Your task to perform on an android device: change the upload size in google photos Image 0: 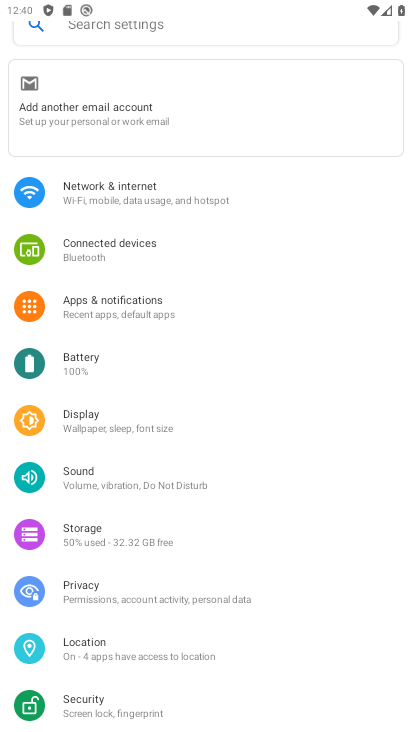
Step 0: press home button
Your task to perform on an android device: change the upload size in google photos Image 1: 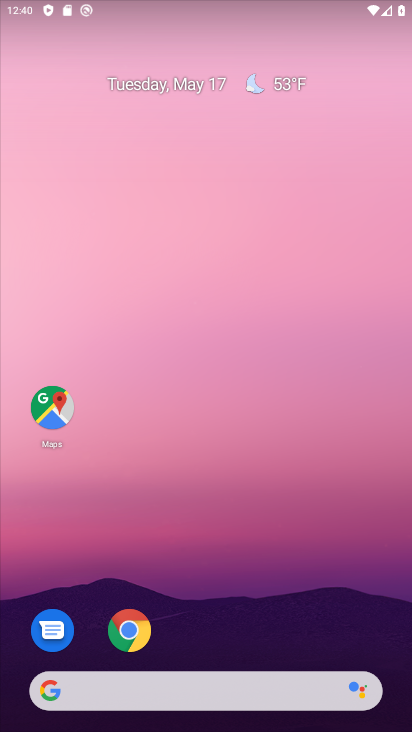
Step 1: drag from (204, 614) to (215, 356)
Your task to perform on an android device: change the upload size in google photos Image 2: 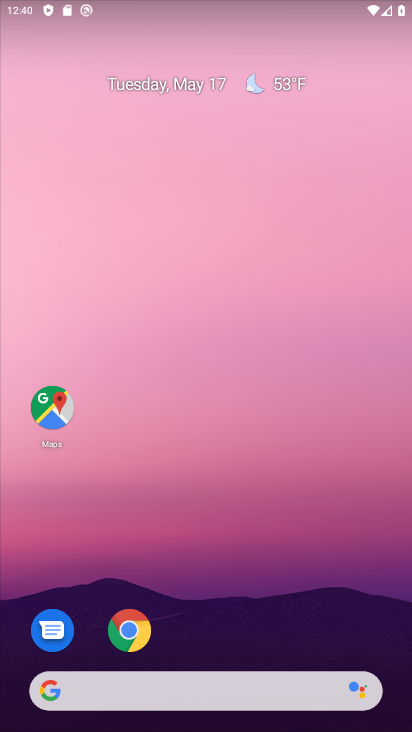
Step 2: drag from (215, 559) to (266, 150)
Your task to perform on an android device: change the upload size in google photos Image 3: 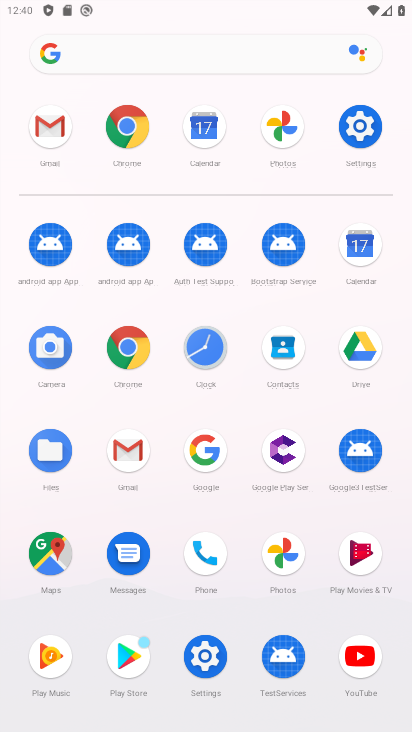
Step 3: click (289, 547)
Your task to perform on an android device: change the upload size in google photos Image 4: 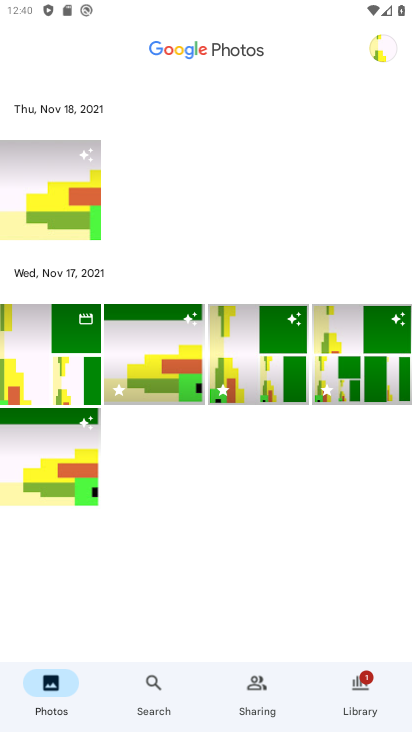
Step 4: click (383, 55)
Your task to perform on an android device: change the upload size in google photos Image 5: 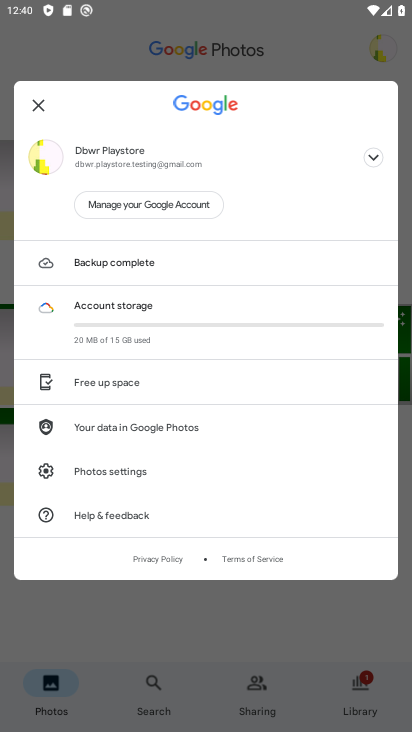
Step 5: click (119, 479)
Your task to perform on an android device: change the upload size in google photos Image 6: 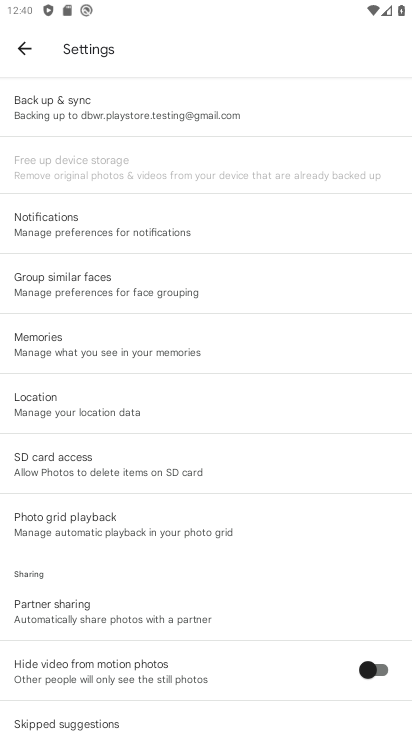
Step 6: click (117, 130)
Your task to perform on an android device: change the upload size in google photos Image 7: 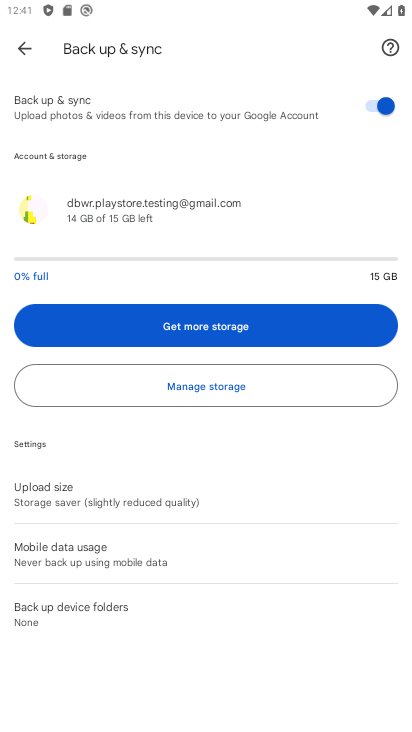
Step 7: click (125, 497)
Your task to perform on an android device: change the upload size in google photos Image 8: 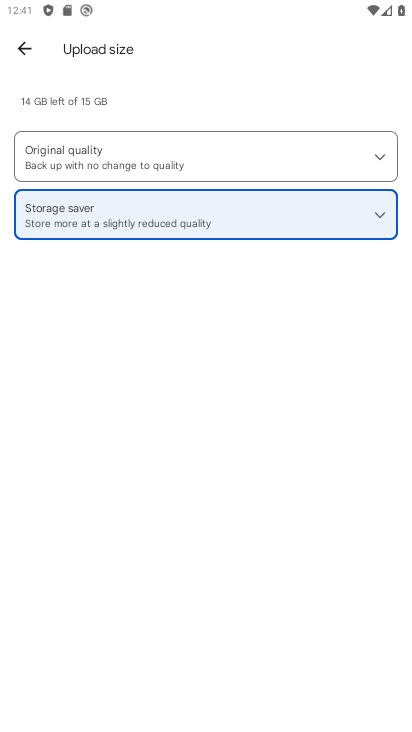
Step 8: click (145, 163)
Your task to perform on an android device: change the upload size in google photos Image 9: 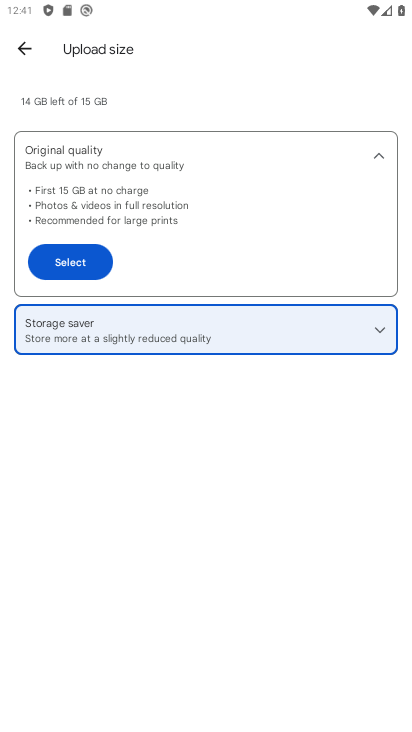
Step 9: click (80, 266)
Your task to perform on an android device: change the upload size in google photos Image 10: 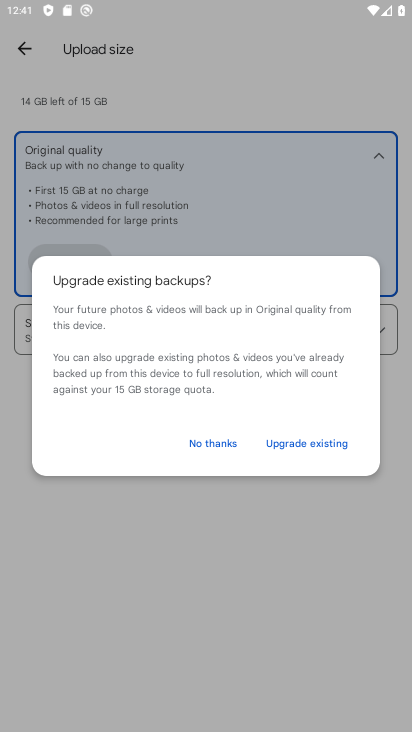
Step 10: click (197, 433)
Your task to perform on an android device: change the upload size in google photos Image 11: 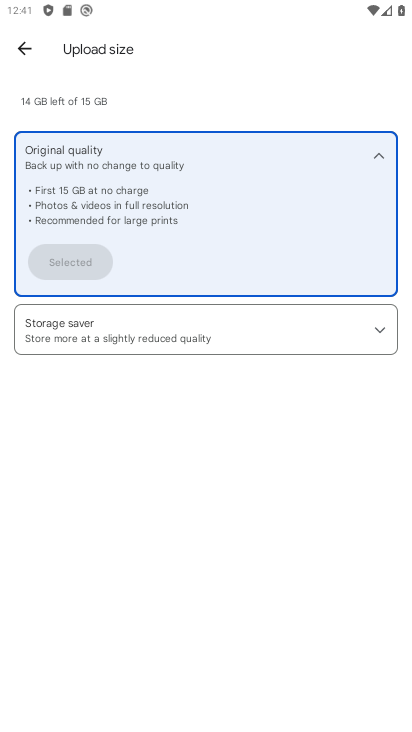
Step 11: task complete